Your task to perform on an android device: Open Wikipedia Image 0: 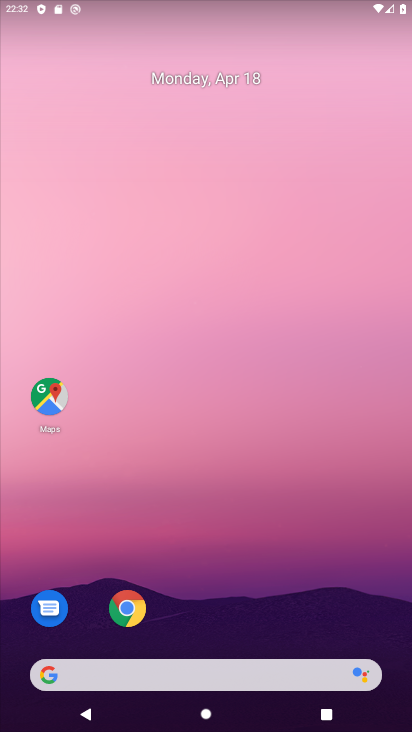
Step 0: drag from (245, 495) to (237, 95)
Your task to perform on an android device: Open Wikipedia Image 1: 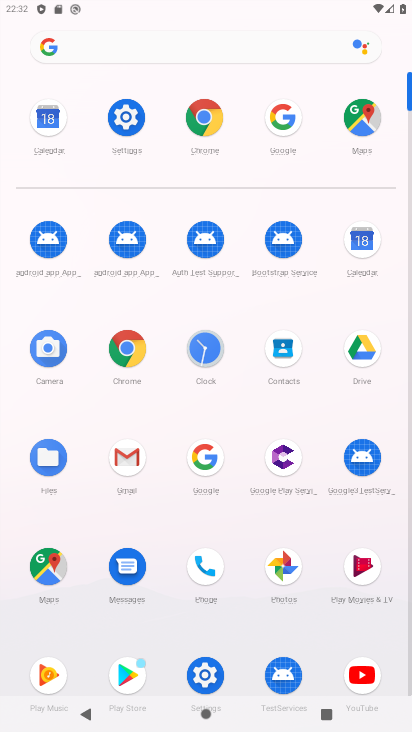
Step 1: click (123, 343)
Your task to perform on an android device: Open Wikipedia Image 2: 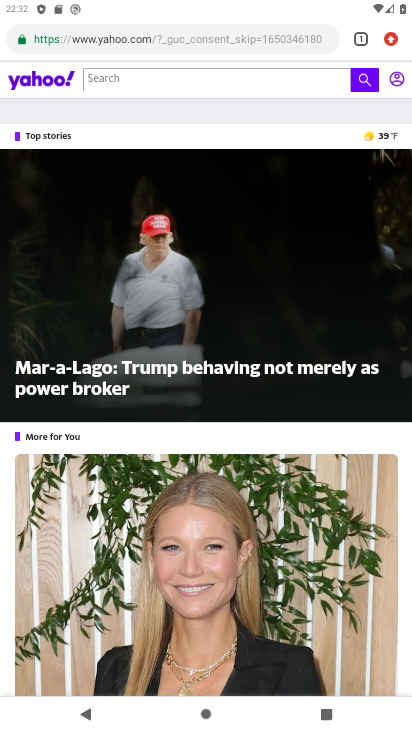
Step 2: press back button
Your task to perform on an android device: Open Wikipedia Image 3: 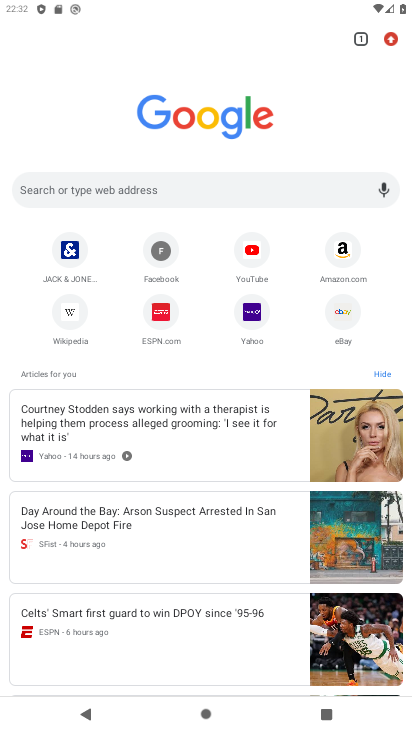
Step 3: click (65, 312)
Your task to perform on an android device: Open Wikipedia Image 4: 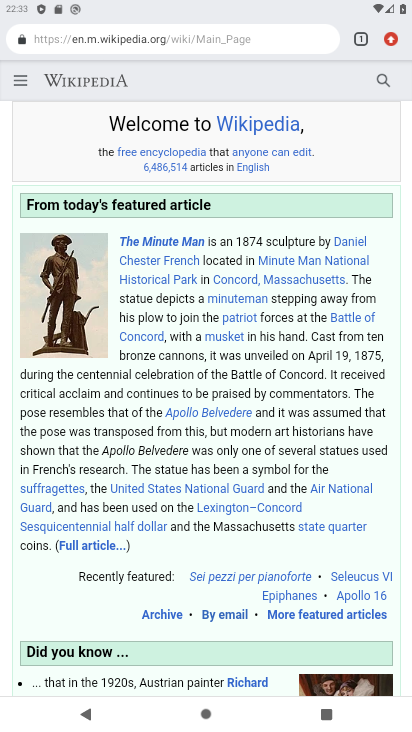
Step 4: task complete